Your task to perform on an android device: Go to Maps Image 0: 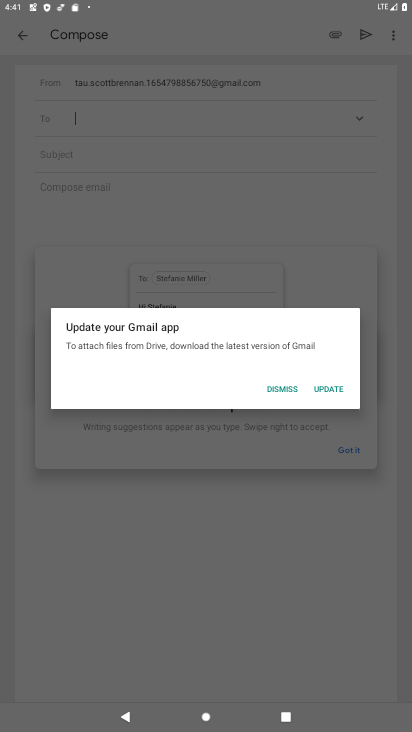
Step 0: press home button
Your task to perform on an android device: Go to Maps Image 1: 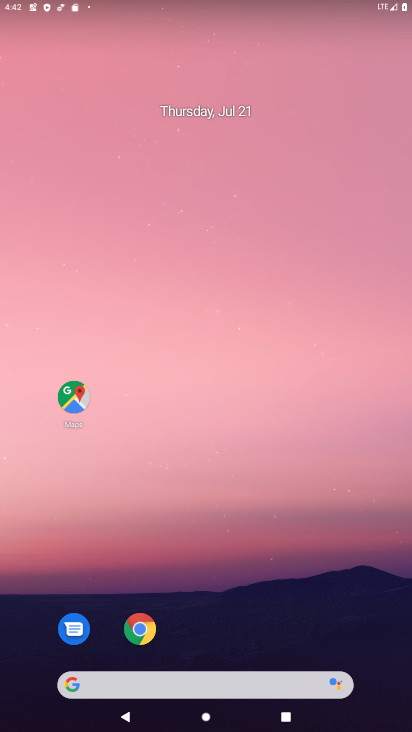
Step 1: click (67, 391)
Your task to perform on an android device: Go to Maps Image 2: 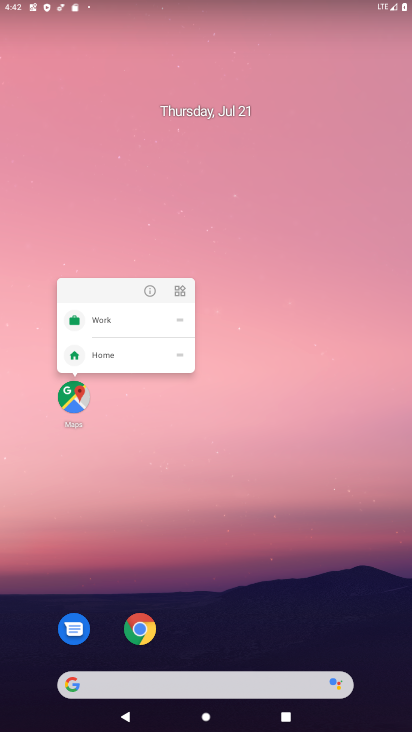
Step 2: click (67, 386)
Your task to perform on an android device: Go to Maps Image 3: 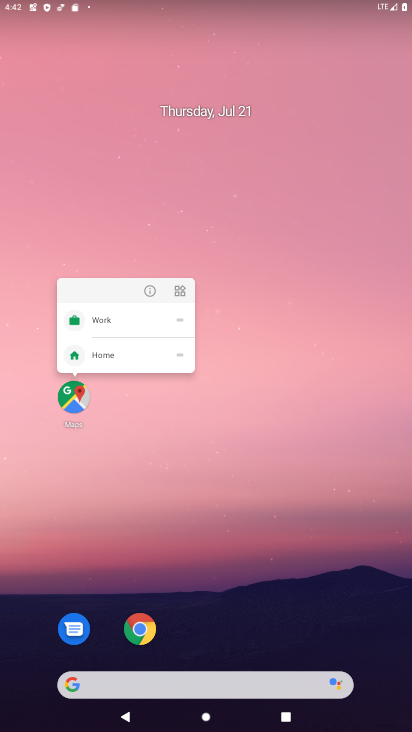
Step 3: click (75, 397)
Your task to perform on an android device: Go to Maps Image 4: 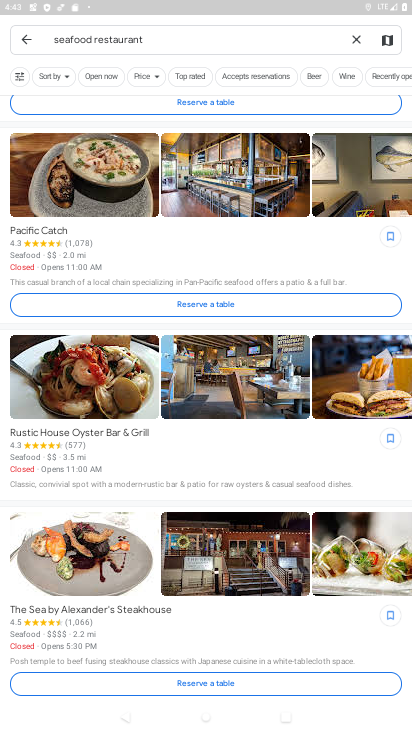
Step 4: click (28, 35)
Your task to perform on an android device: Go to Maps Image 5: 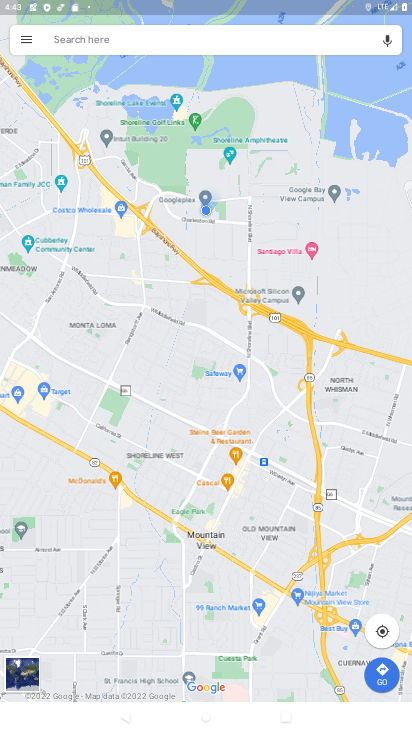
Step 5: task complete